Your task to perform on an android device: delete the emails in spam in the gmail app Image 0: 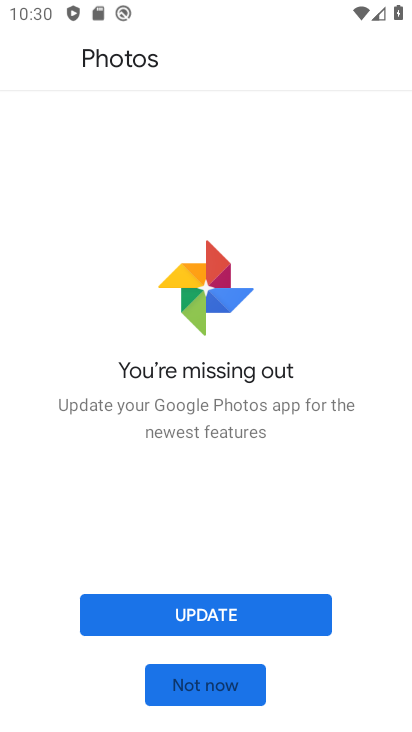
Step 0: press home button
Your task to perform on an android device: delete the emails in spam in the gmail app Image 1: 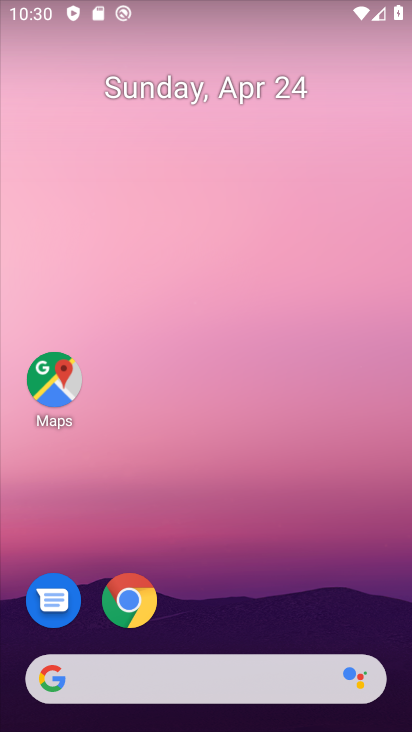
Step 1: drag from (247, 533) to (268, 33)
Your task to perform on an android device: delete the emails in spam in the gmail app Image 2: 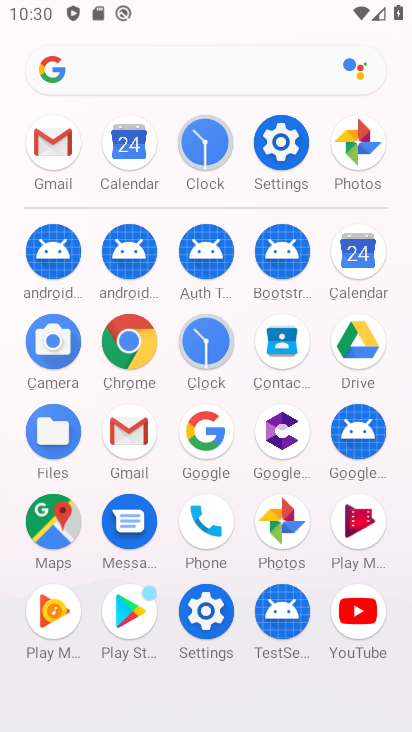
Step 2: click (130, 439)
Your task to perform on an android device: delete the emails in spam in the gmail app Image 3: 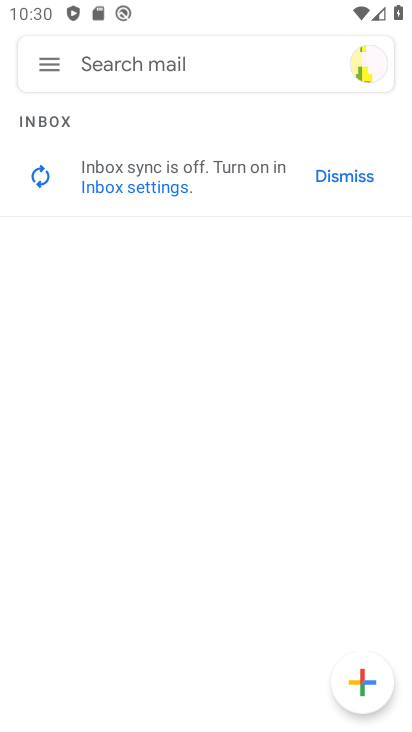
Step 3: click (43, 66)
Your task to perform on an android device: delete the emails in spam in the gmail app Image 4: 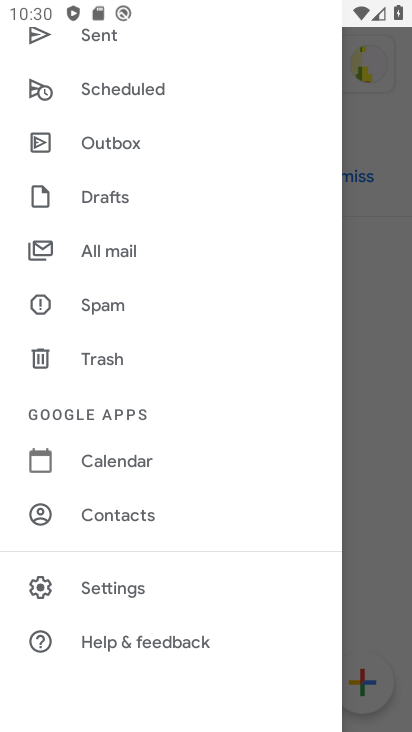
Step 4: click (106, 309)
Your task to perform on an android device: delete the emails in spam in the gmail app Image 5: 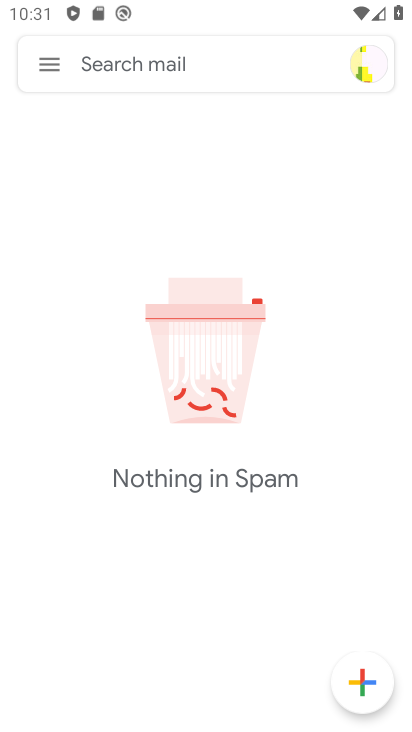
Step 5: task complete